Your task to perform on an android device: Go to Wikipedia Image 0: 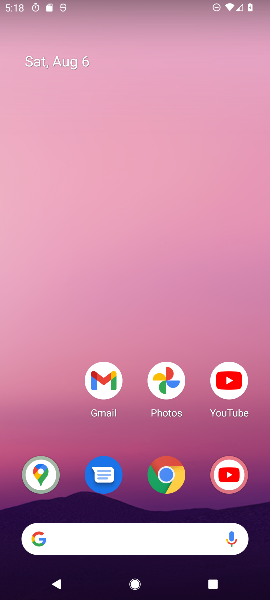
Step 0: click (90, 539)
Your task to perform on an android device: Go to Wikipedia Image 1: 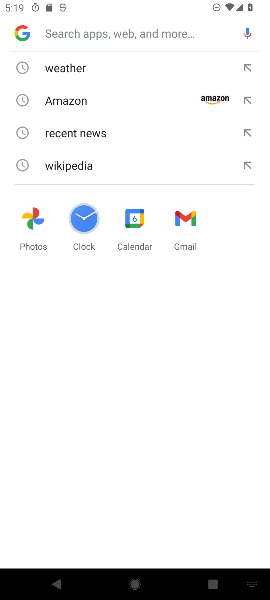
Step 1: click (73, 168)
Your task to perform on an android device: Go to Wikipedia Image 2: 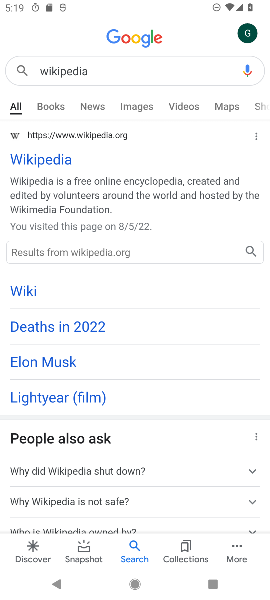
Step 2: task complete